Your task to perform on an android device: turn on translation in the chrome app Image 0: 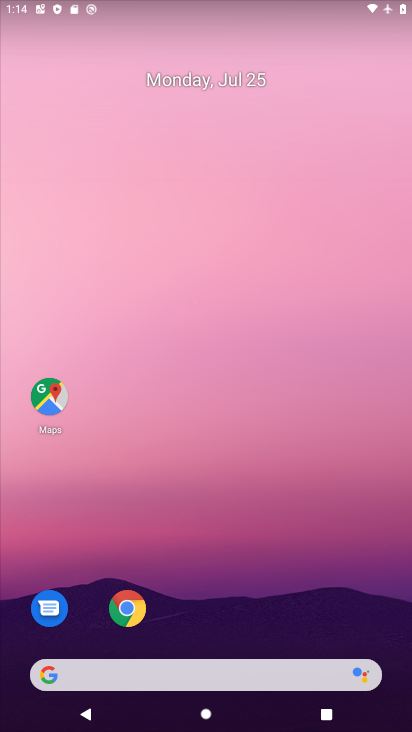
Step 0: drag from (199, 507) to (321, 148)
Your task to perform on an android device: turn on translation in the chrome app Image 1: 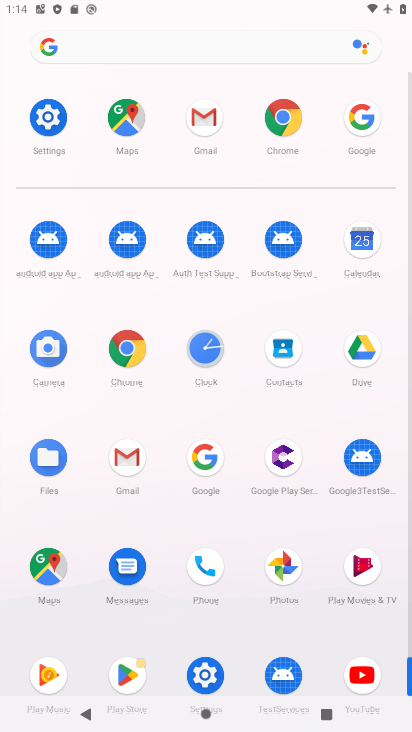
Step 1: click (125, 372)
Your task to perform on an android device: turn on translation in the chrome app Image 2: 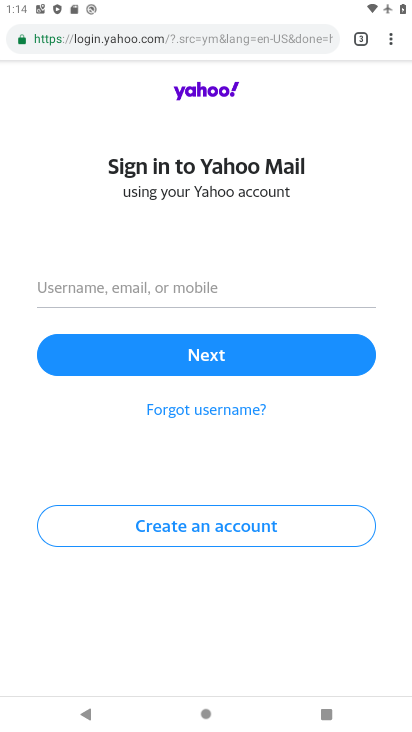
Step 2: click (390, 41)
Your task to perform on an android device: turn on translation in the chrome app Image 3: 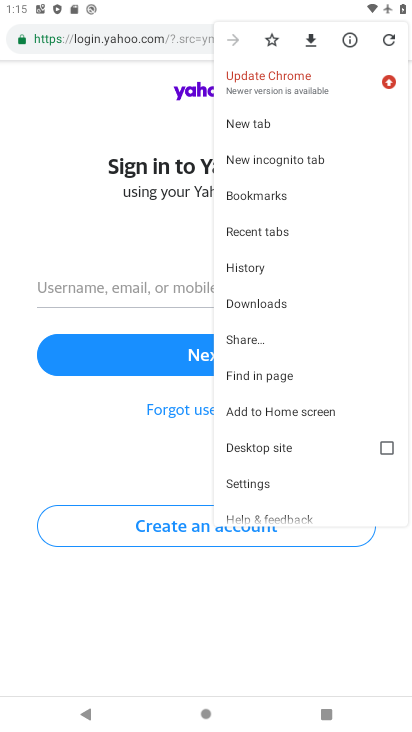
Step 3: task complete